Your task to perform on an android device: Open wifi settings Image 0: 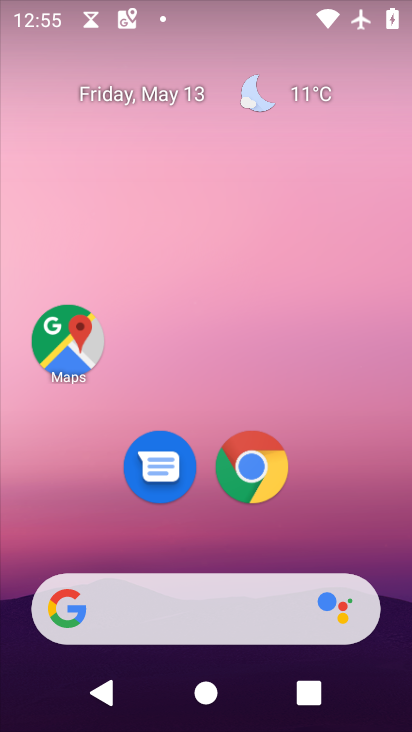
Step 0: drag from (344, 500) to (185, 34)
Your task to perform on an android device: Open wifi settings Image 1: 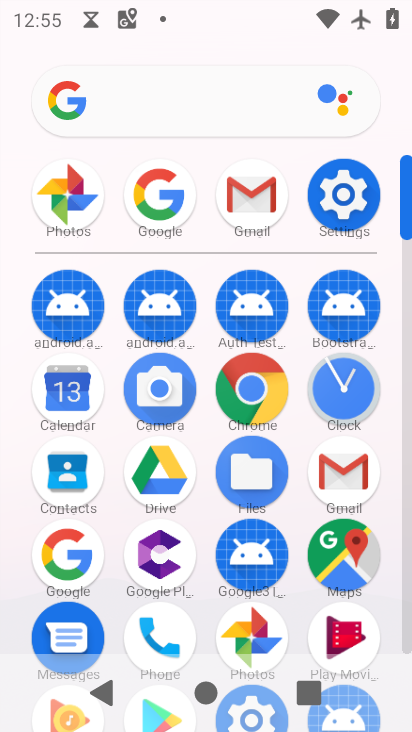
Step 1: click (337, 207)
Your task to perform on an android device: Open wifi settings Image 2: 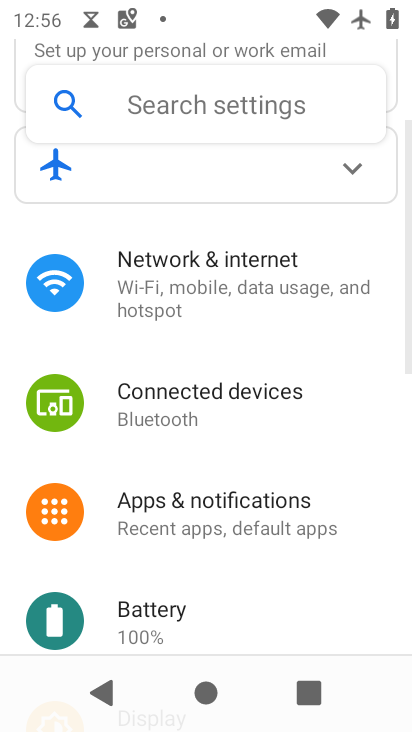
Step 2: click (208, 279)
Your task to perform on an android device: Open wifi settings Image 3: 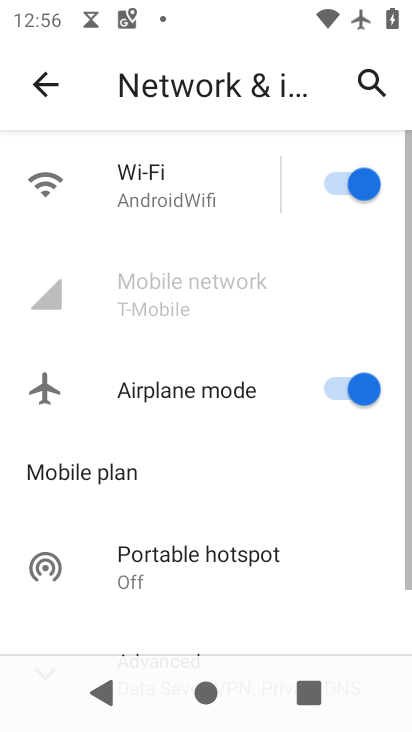
Step 3: click (188, 172)
Your task to perform on an android device: Open wifi settings Image 4: 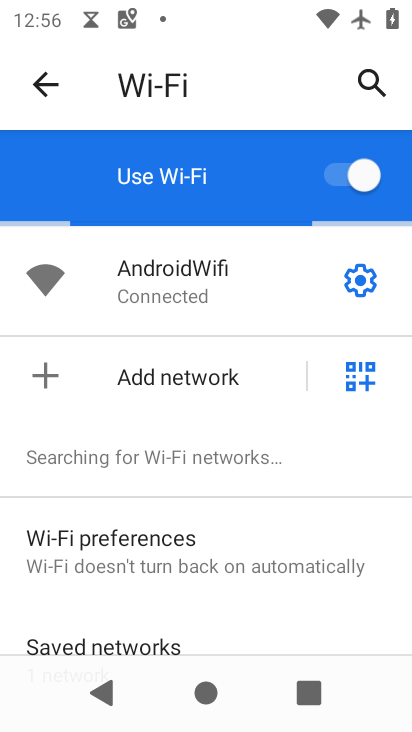
Step 4: task complete